Your task to perform on an android device: turn off sleep mode Image 0: 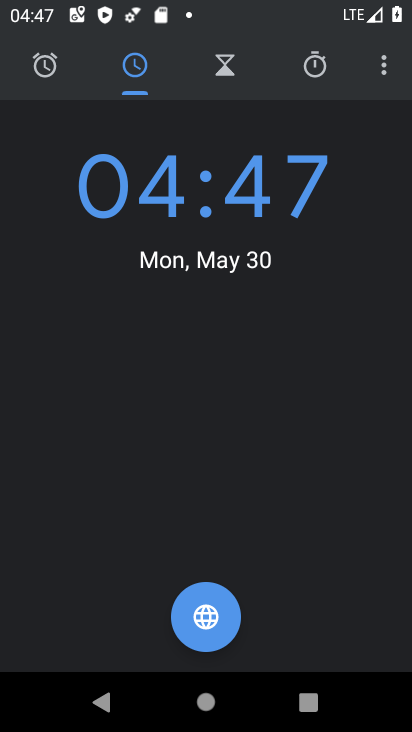
Step 0: press home button
Your task to perform on an android device: turn off sleep mode Image 1: 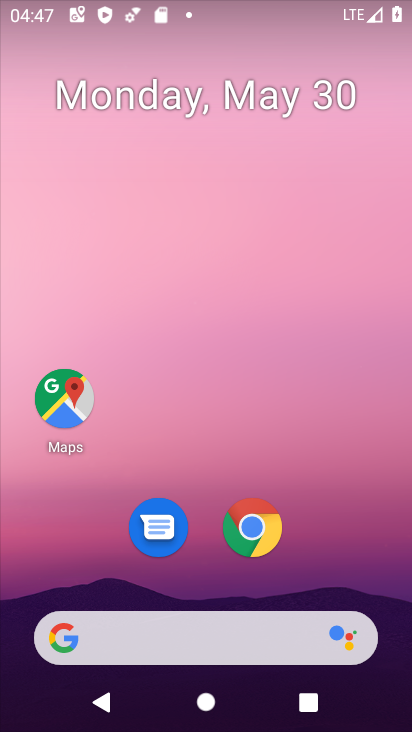
Step 1: click (232, 583)
Your task to perform on an android device: turn off sleep mode Image 2: 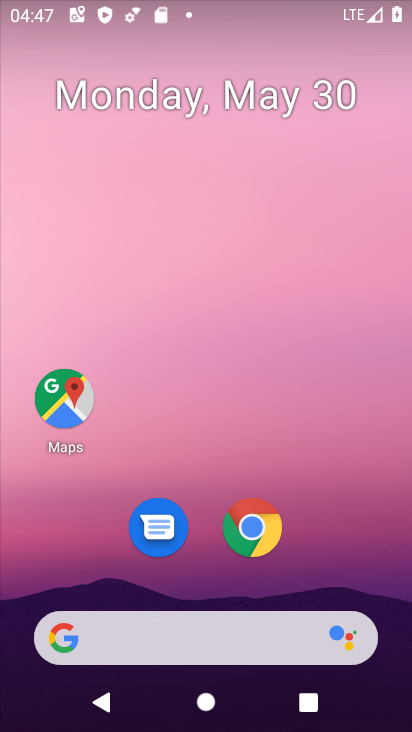
Step 2: drag from (232, 261) to (230, 2)
Your task to perform on an android device: turn off sleep mode Image 3: 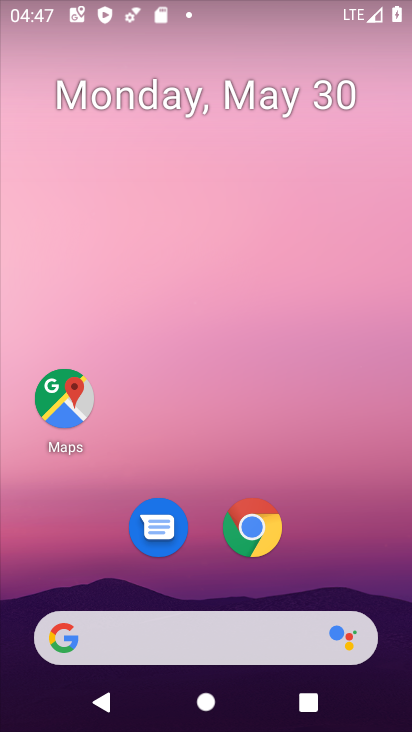
Step 3: drag from (225, 720) to (225, 520)
Your task to perform on an android device: turn off sleep mode Image 4: 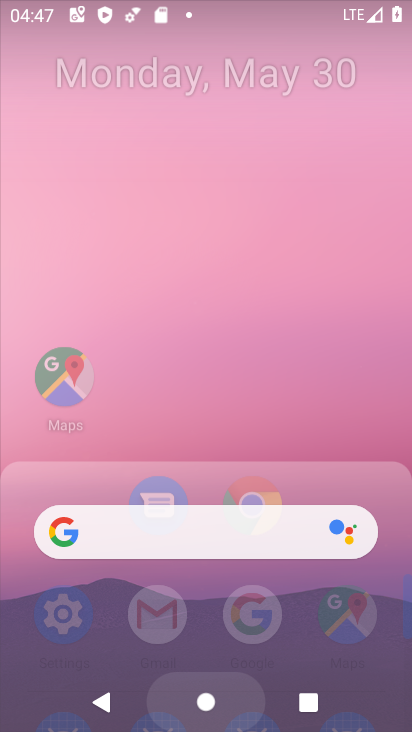
Step 4: drag from (225, 305) to (234, 15)
Your task to perform on an android device: turn off sleep mode Image 5: 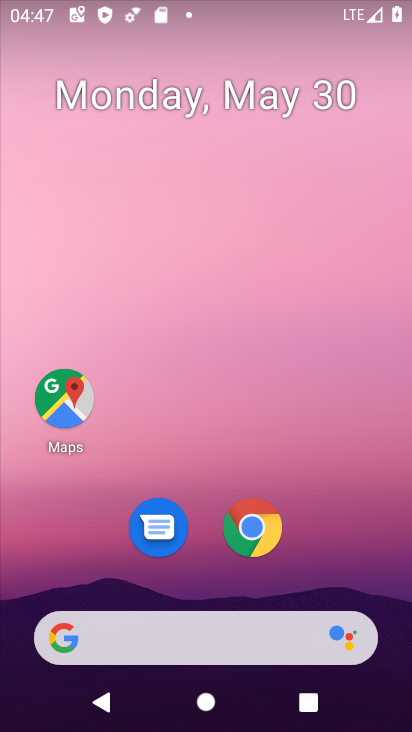
Step 5: click (227, 712)
Your task to perform on an android device: turn off sleep mode Image 6: 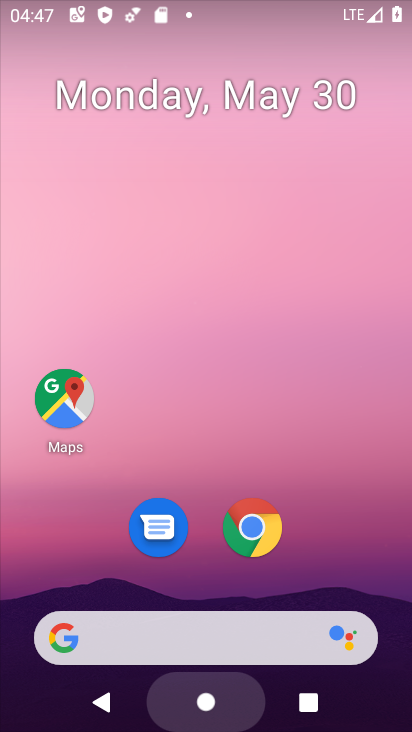
Step 6: drag from (226, 286) to (203, 6)
Your task to perform on an android device: turn off sleep mode Image 7: 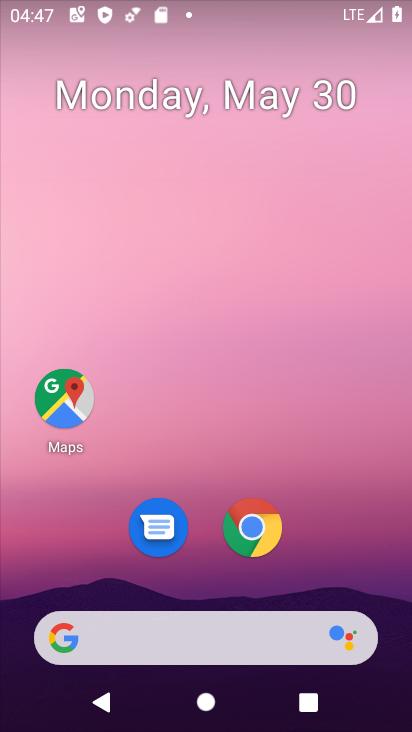
Step 7: drag from (223, 725) to (225, 684)
Your task to perform on an android device: turn off sleep mode Image 8: 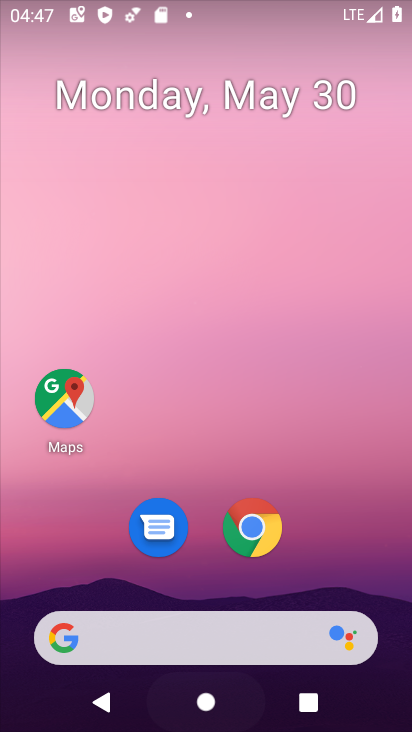
Step 8: click (225, 2)
Your task to perform on an android device: turn off sleep mode Image 9: 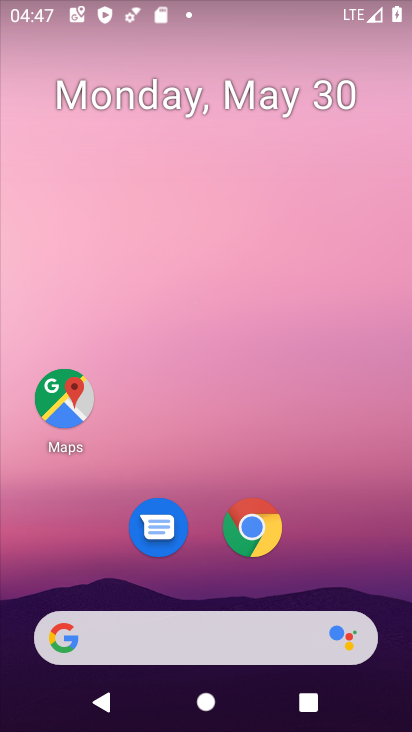
Step 9: click (221, 709)
Your task to perform on an android device: turn off sleep mode Image 10: 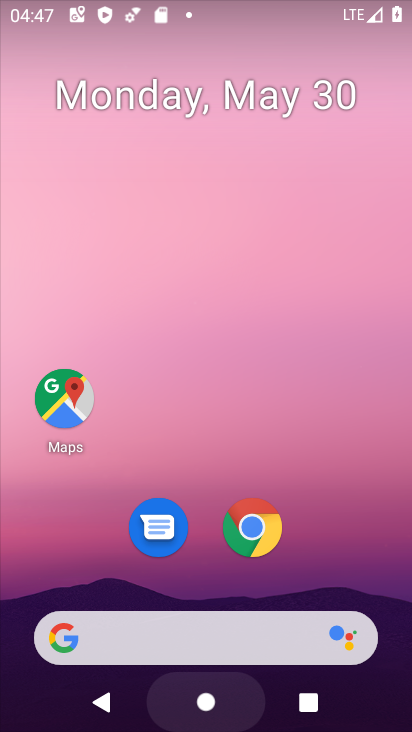
Step 10: drag from (223, 140) to (222, 3)
Your task to perform on an android device: turn off sleep mode Image 11: 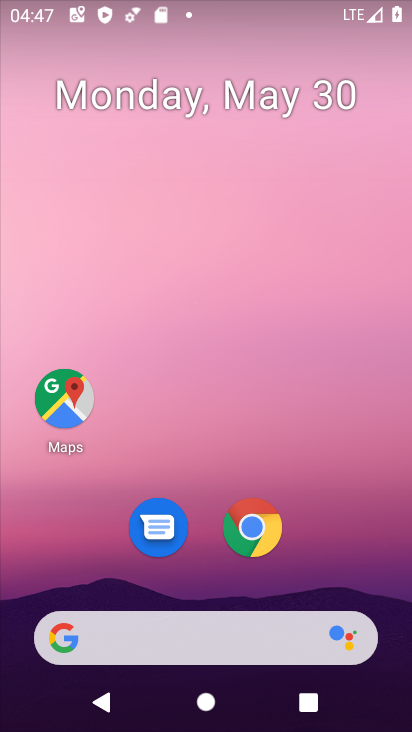
Step 11: click (230, 669)
Your task to perform on an android device: turn off sleep mode Image 12: 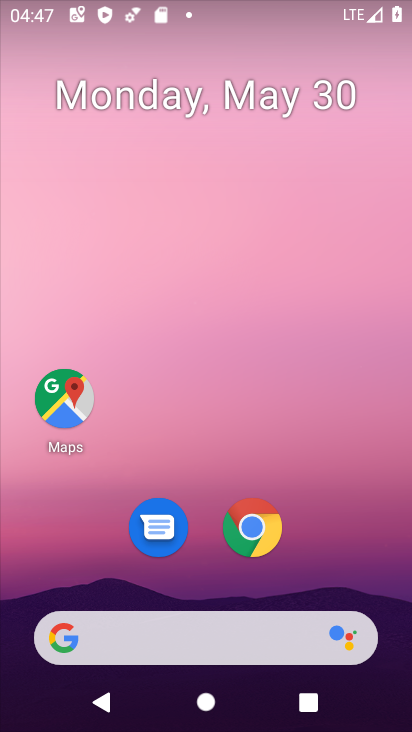
Step 12: drag from (211, 354) to (214, 15)
Your task to perform on an android device: turn off sleep mode Image 13: 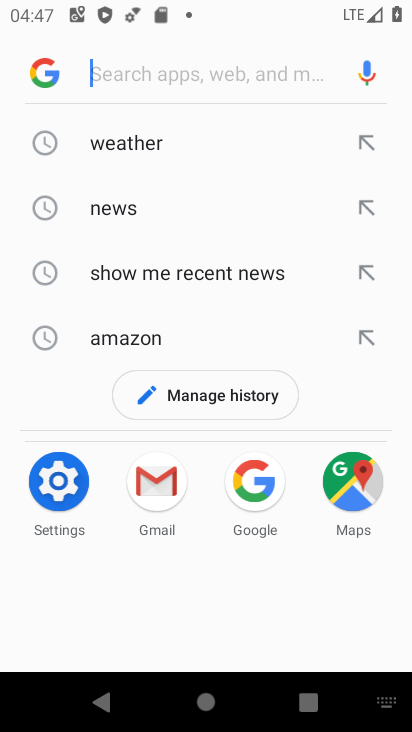
Step 13: press home button
Your task to perform on an android device: turn off sleep mode Image 14: 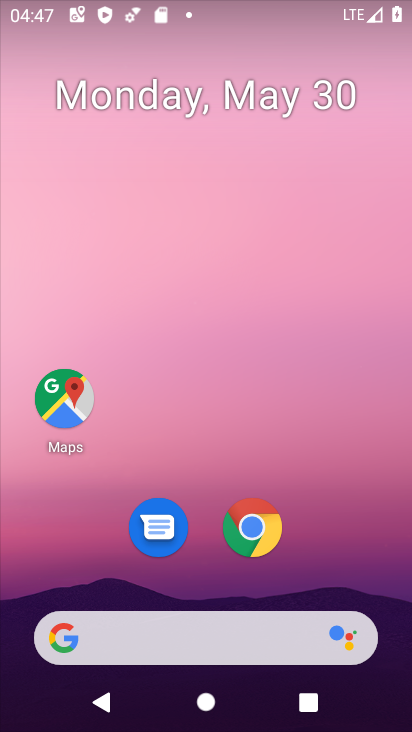
Step 14: click (239, 715)
Your task to perform on an android device: turn off sleep mode Image 15: 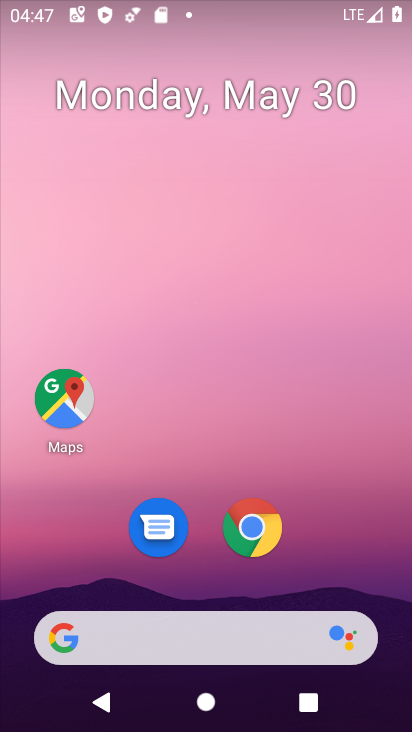
Step 15: click (241, 26)
Your task to perform on an android device: turn off sleep mode Image 16: 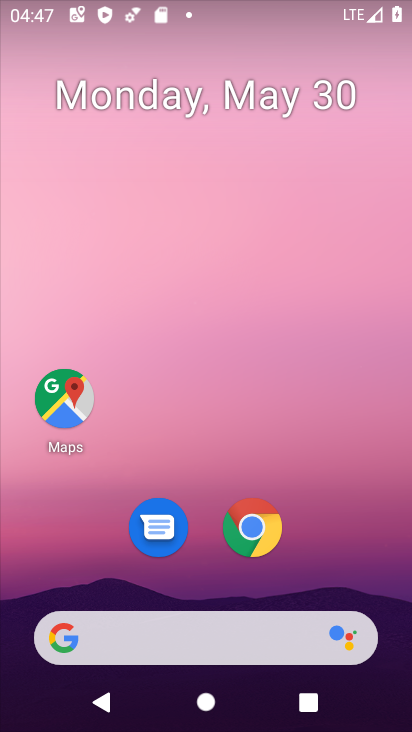
Step 16: click (195, 369)
Your task to perform on an android device: turn off sleep mode Image 17: 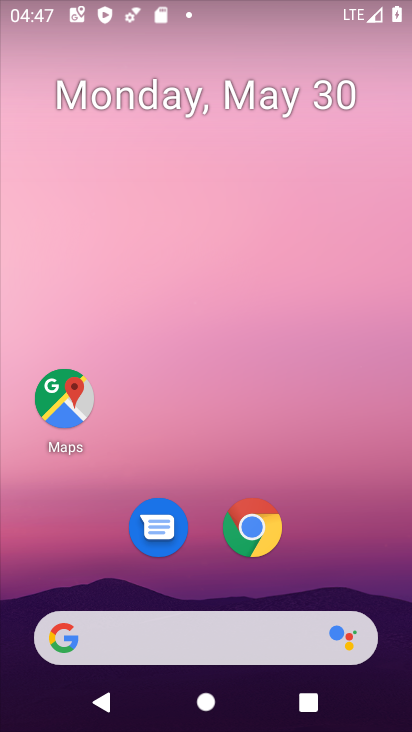
Step 17: click (231, 662)
Your task to perform on an android device: turn off sleep mode Image 18: 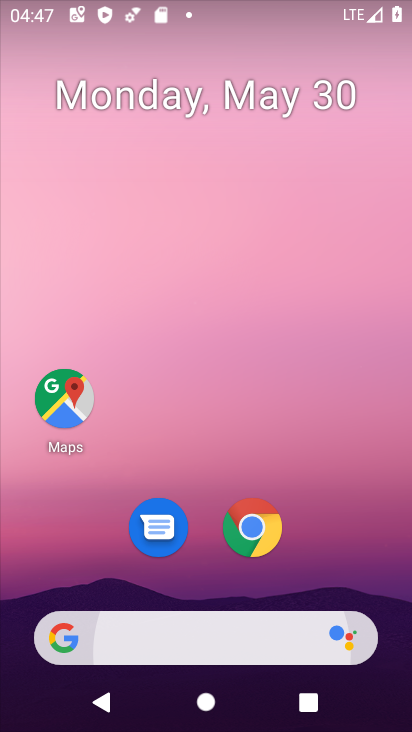
Step 18: click (213, 122)
Your task to perform on an android device: turn off sleep mode Image 19: 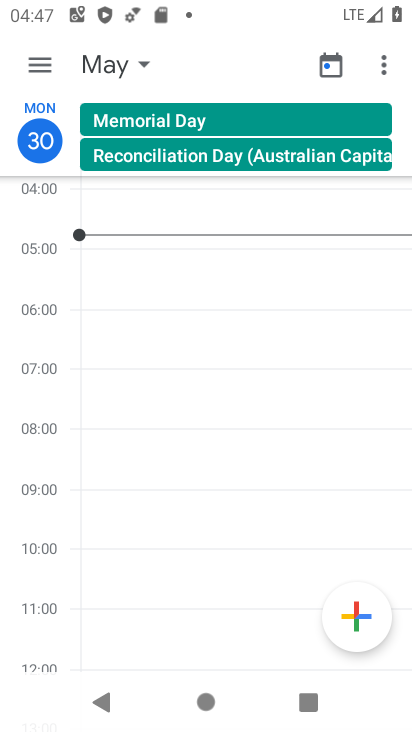
Step 19: press home button
Your task to perform on an android device: turn off sleep mode Image 20: 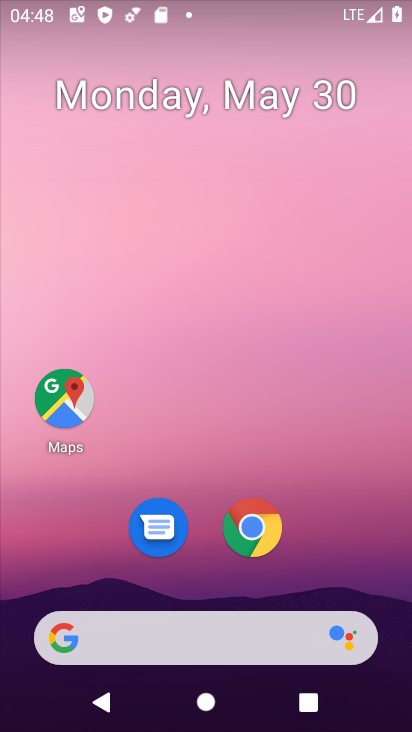
Step 20: drag from (224, 712) to (228, 672)
Your task to perform on an android device: turn off sleep mode Image 21: 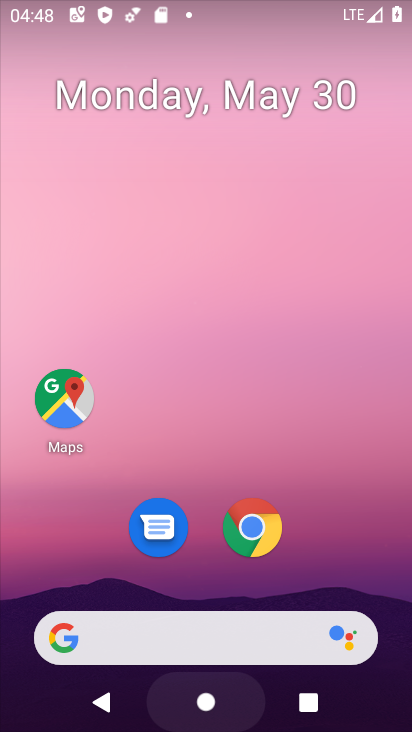
Step 21: drag from (226, 147) to (226, 109)
Your task to perform on an android device: turn off sleep mode Image 22: 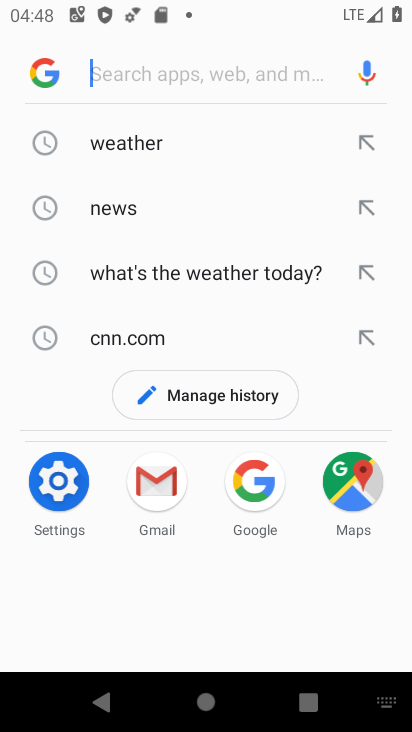
Step 22: press home button
Your task to perform on an android device: turn off sleep mode Image 23: 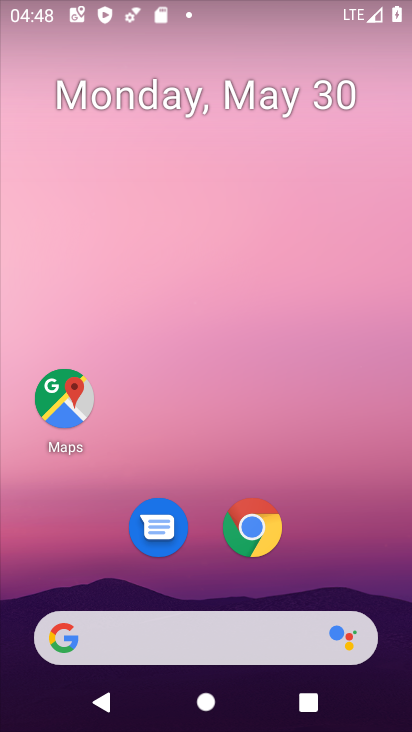
Step 23: drag from (225, 727) to (225, 679)
Your task to perform on an android device: turn off sleep mode Image 24: 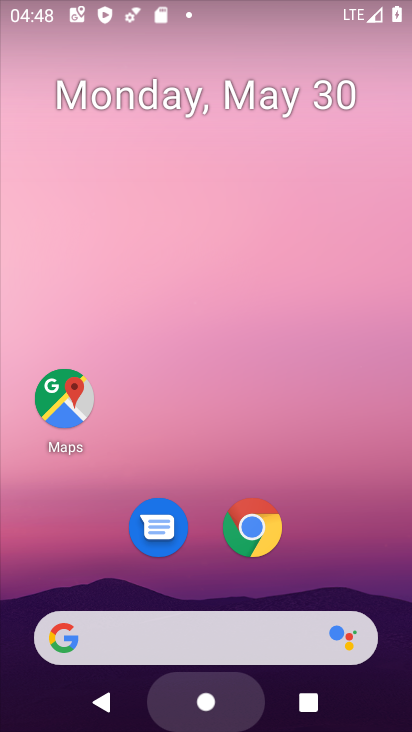
Step 24: drag from (223, 379) to (220, 103)
Your task to perform on an android device: turn off sleep mode Image 25: 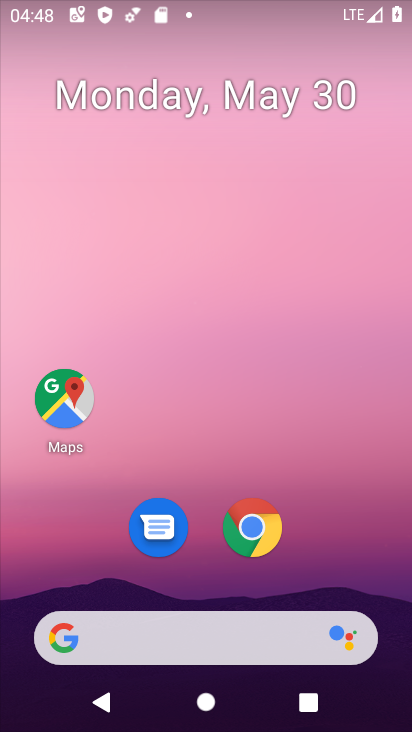
Step 25: drag from (250, 724) to (254, 674)
Your task to perform on an android device: turn off sleep mode Image 26: 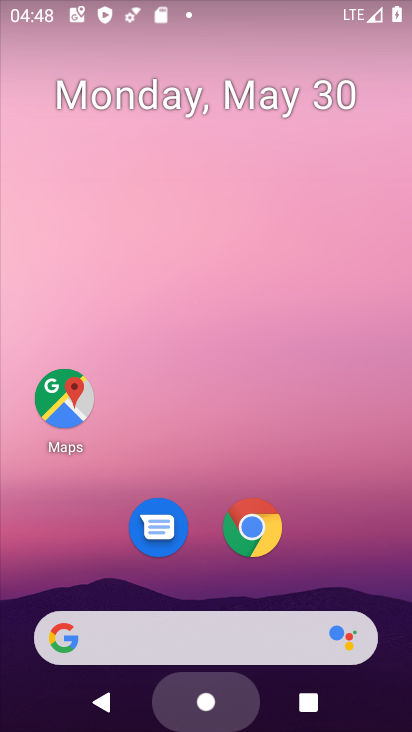
Step 26: drag from (258, 391) to (284, 1)
Your task to perform on an android device: turn off sleep mode Image 27: 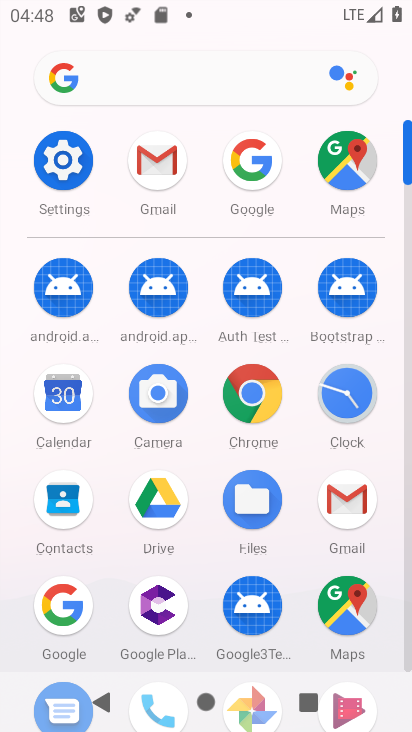
Step 27: click (57, 161)
Your task to perform on an android device: turn off sleep mode Image 28: 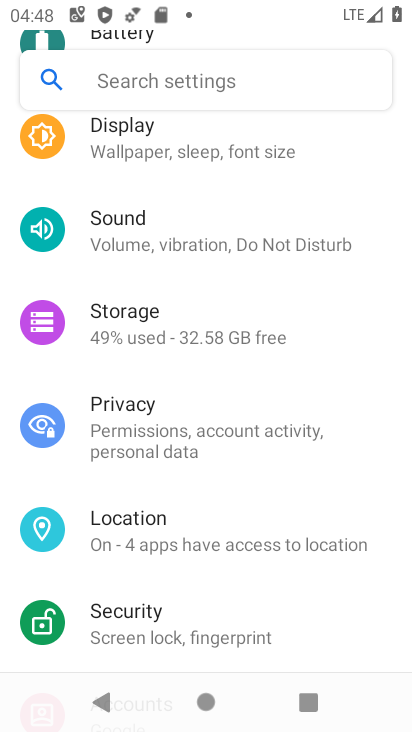
Step 28: task complete